Your task to perform on an android device: Play the last video I watched on Youtube Image 0: 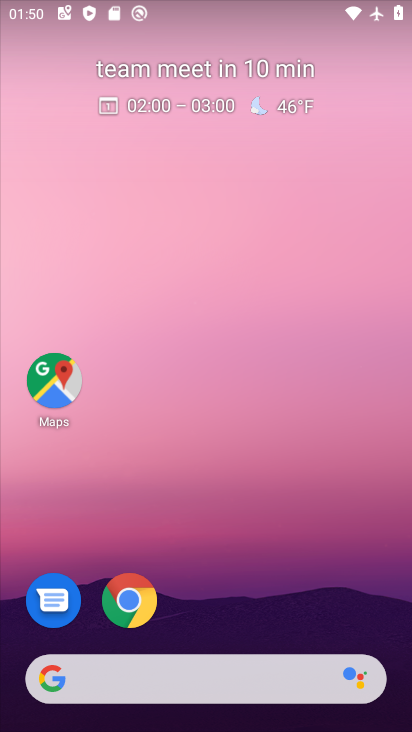
Step 0: drag from (211, 642) to (112, 33)
Your task to perform on an android device: Play the last video I watched on Youtube Image 1: 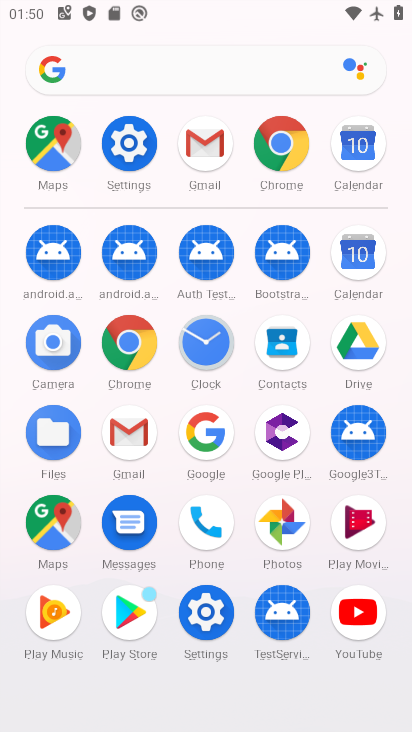
Step 1: click (351, 618)
Your task to perform on an android device: Play the last video I watched on Youtube Image 2: 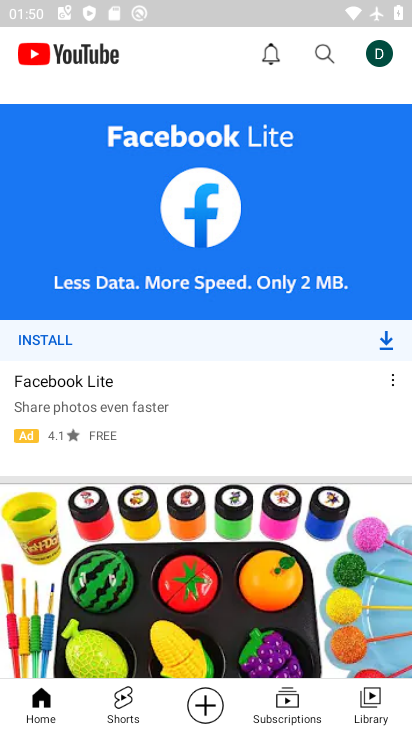
Step 2: click (377, 719)
Your task to perform on an android device: Play the last video I watched on Youtube Image 3: 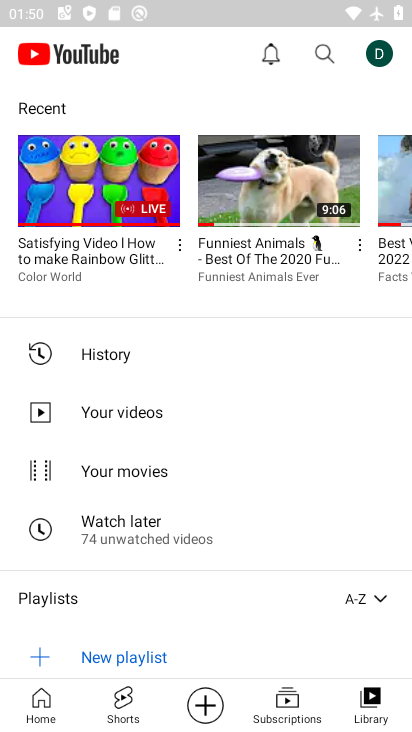
Step 3: click (130, 355)
Your task to perform on an android device: Play the last video I watched on Youtube Image 4: 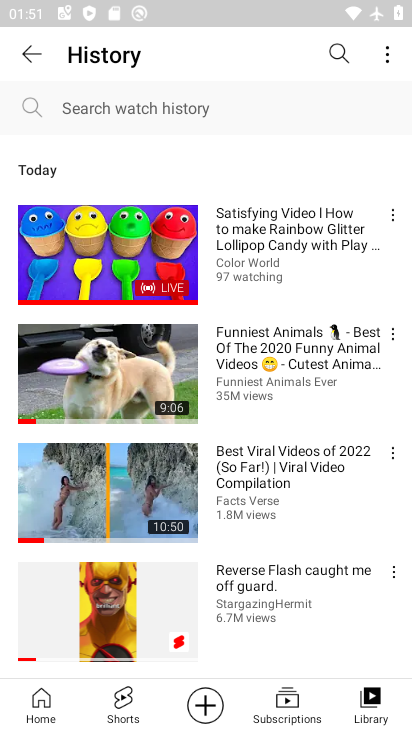
Step 4: click (191, 294)
Your task to perform on an android device: Play the last video I watched on Youtube Image 5: 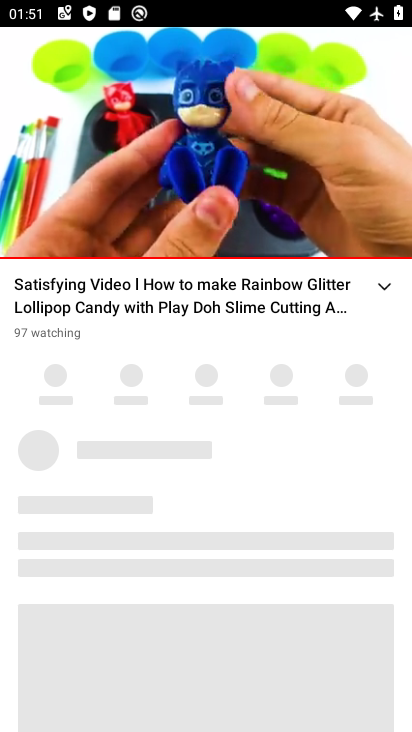
Step 5: click (186, 142)
Your task to perform on an android device: Play the last video I watched on Youtube Image 6: 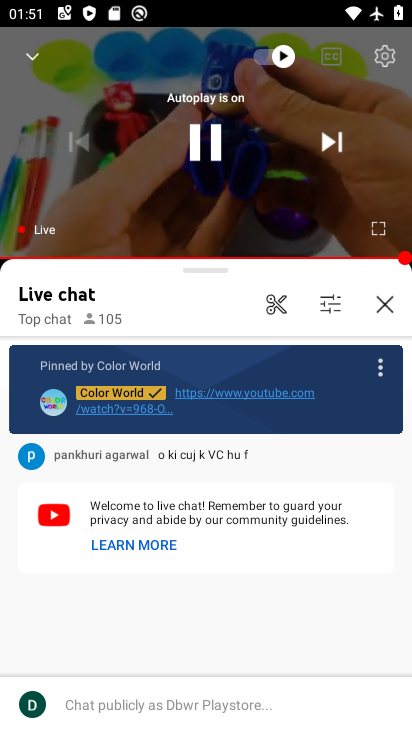
Step 6: click (199, 140)
Your task to perform on an android device: Play the last video I watched on Youtube Image 7: 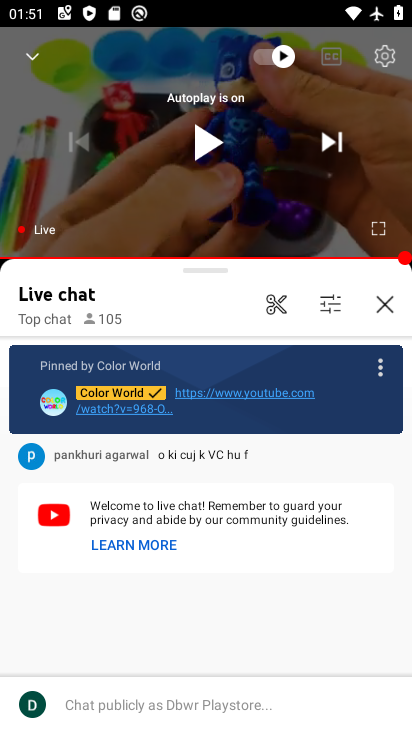
Step 7: task complete